Your task to perform on an android device: Do I have any events this weekend? Image 0: 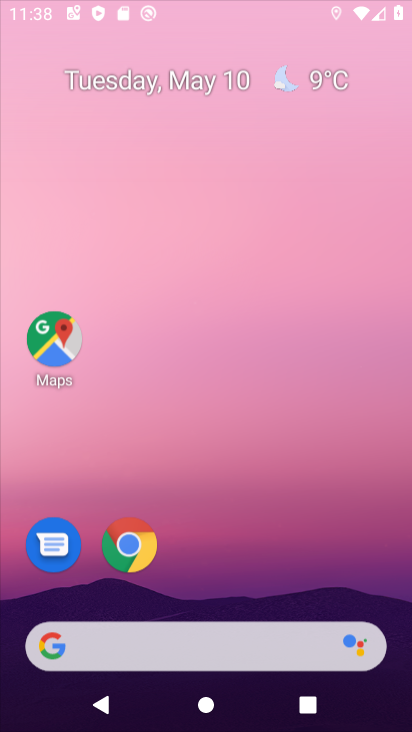
Step 0: click (370, 167)
Your task to perform on an android device: Do I have any events this weekend? Image 1: 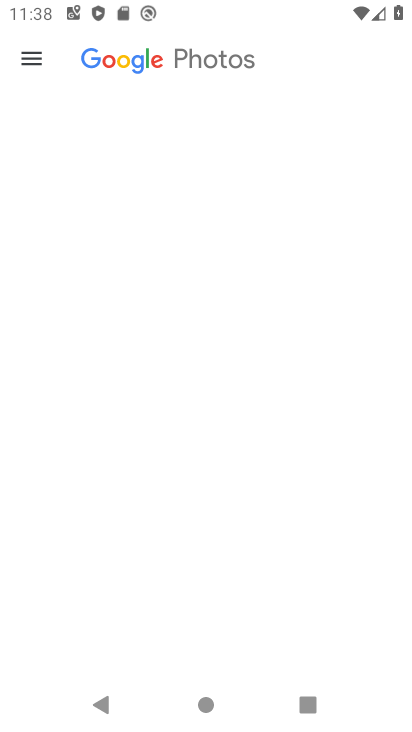
Step 1: drag from (219, 631) to (306, 232)
Your task to perform on an android device: Do I have any events this weekend? Image 2: 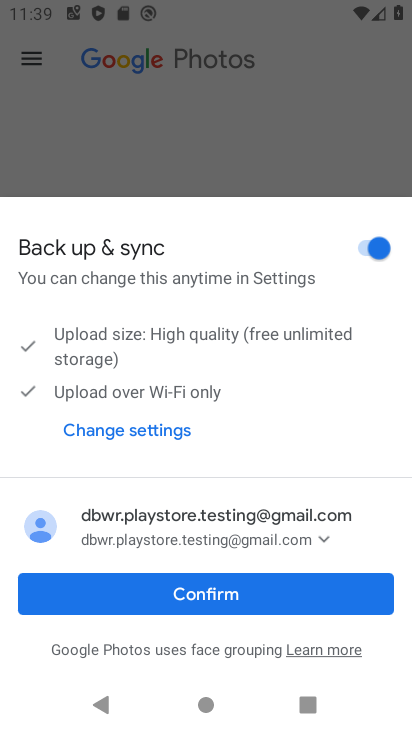
Step 2: press home button
Your task to perform on an android device: Do I have any events this weekend? Image 3: 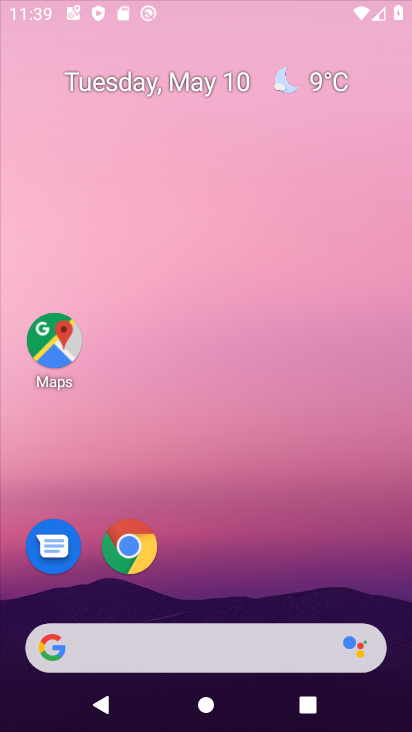
Step 3: drag from (204, 652) to (323, 77)
Your task to perform on an android device: Do I have any events this weekend? Image 4: 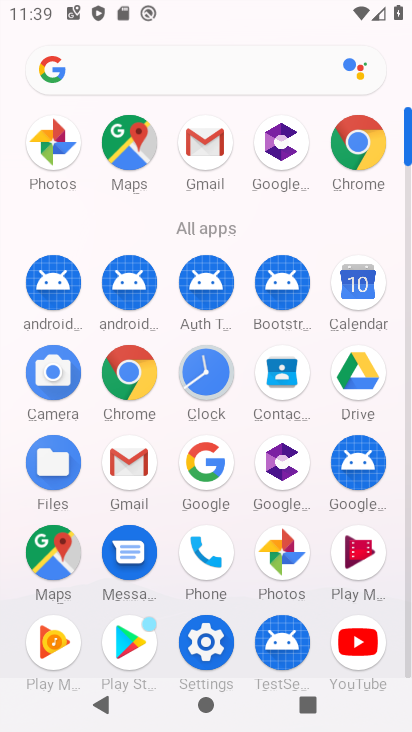
Step 4: click (360, 275)
Your task to perform on an android device: Do I have any events this weekend? Image 5: 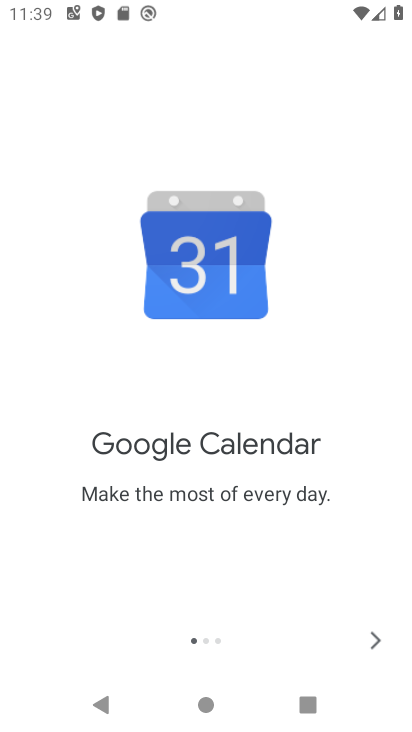
Step 5: click (362, 636)
Your task to perform on an android device: Do I have any events this weekend? Image 6: 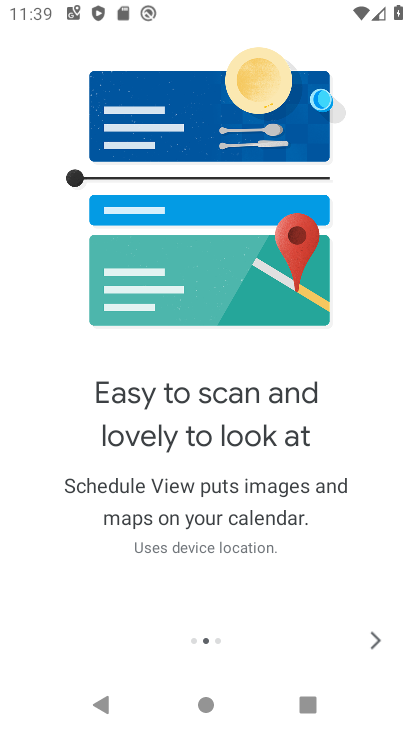
Step 6: click (362, 636)
Your task to perform on an android device: Do I have any events this weekend? Image 7: 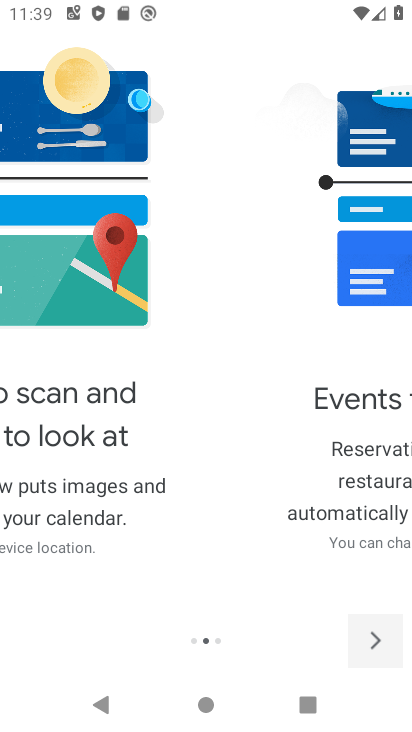
Step 7: click (362, 636)
Your task to perform on an android device: Do I have any events this weekend? Image 8: 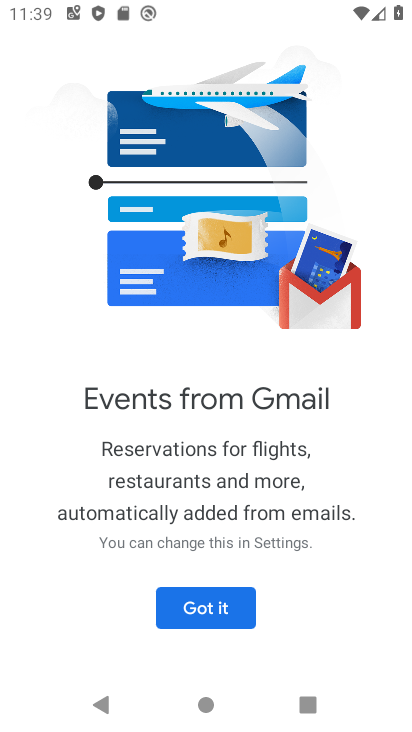
Step 8: click (362, 636)
Your task to perform on an android device: Do I have any events this weekend? Image 9: 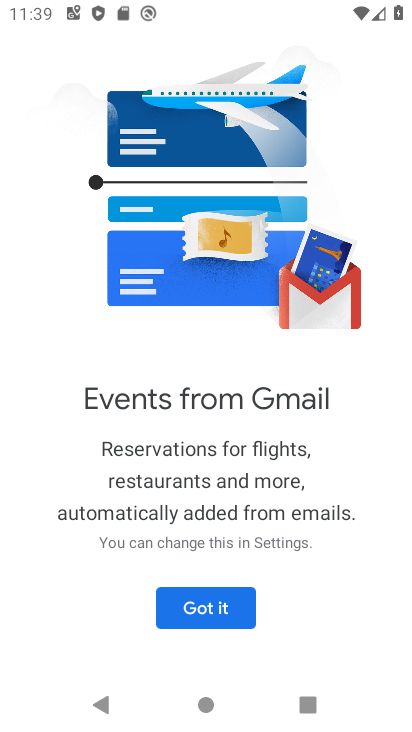
Step 9: click (271, 614)
Your task to perform on an android device: Do I have any events this weekend? Image 10: 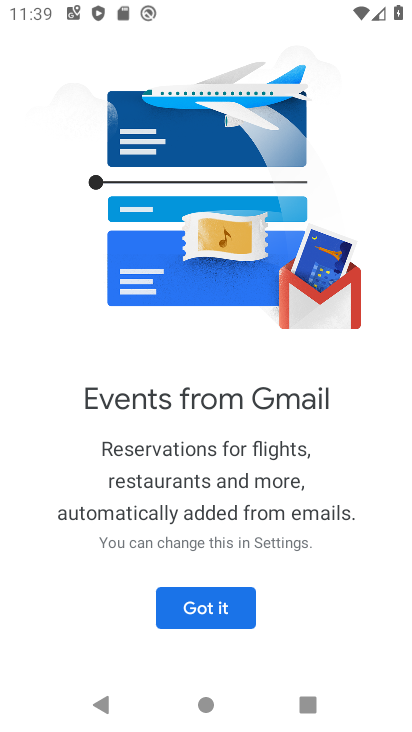
Step 10: click (254, 601)
Your task to perform on an android device: Do I have any events this weekend? Image 11: 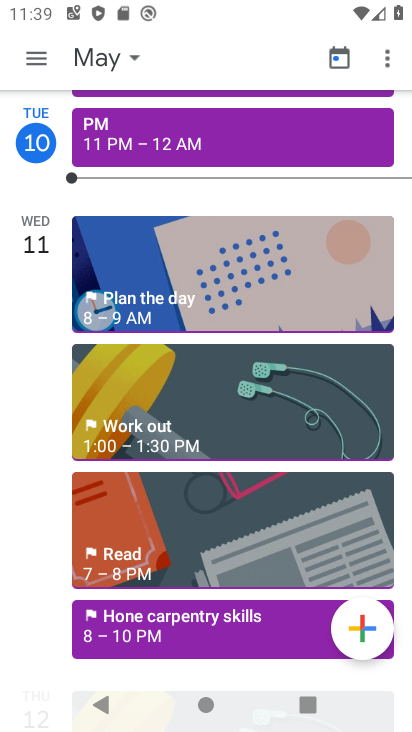
Step 11: click (124, 53)
Your task to perform on an android device: Do I have any events this weekend? Image 12: 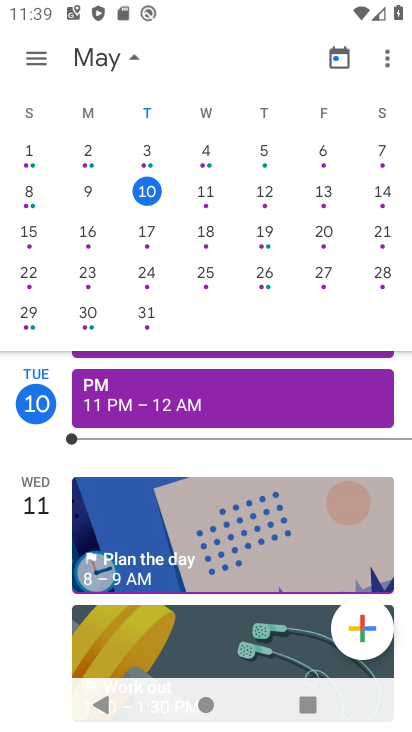
Step 12: click (390, 188)
Your task to perform on an android device: Do I have any events this weekend? Image 13: 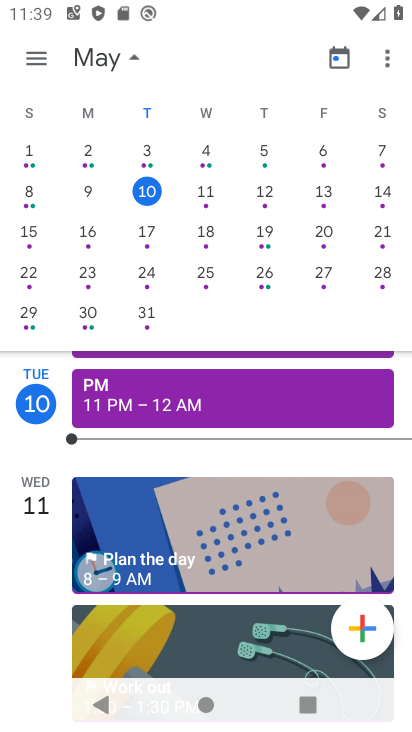
Step 13: click (387, 194)
Your task to perform on an android device: Do I have any events this weekend? Image 14: 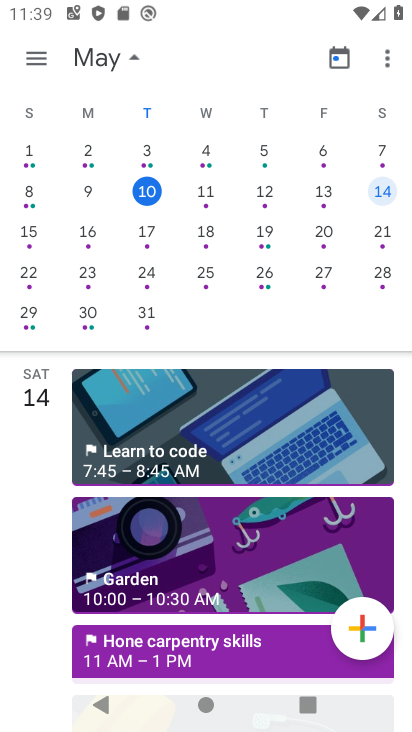
Step 14: task complete